Your task to perform on an android device: Open sound settings Image 0: 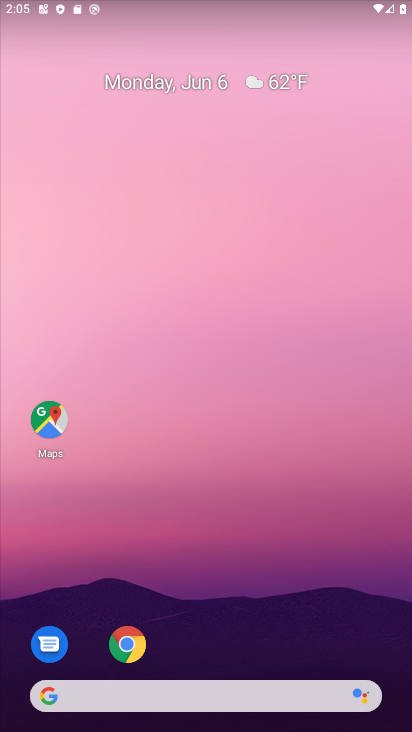
Step 0: drag from (138, 731) to (162, 90)
Your task to perform on an android device: Open sound settings Image 1: 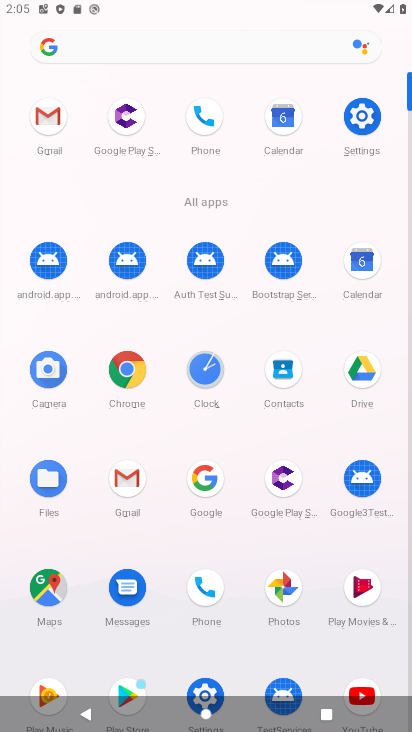
Step 1: click (370, 130)
Your task to perform on an android device: Open sound settings Image 2: 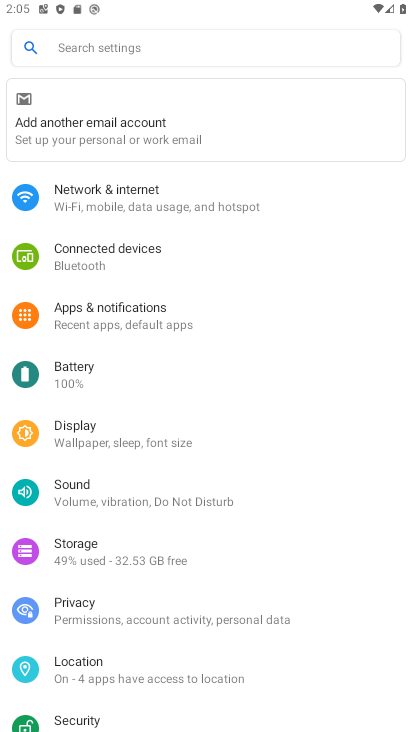
Step 2: click (71, 501)
Your task to perform on an android device: Open sound settings Image 3: 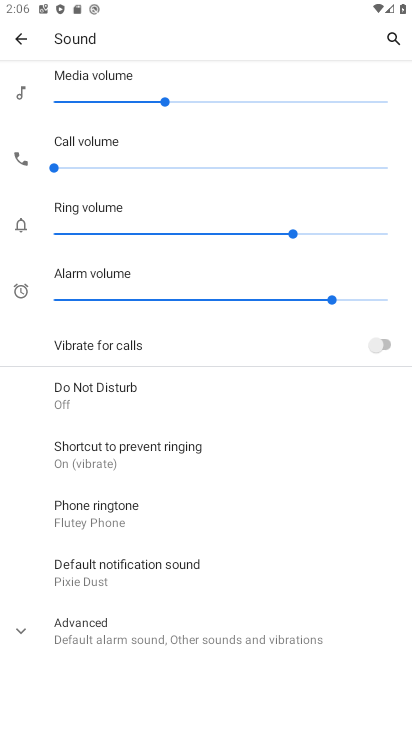
Step 3: task complete